Your task to perform on an android device: Go to calendar. Show me events next week Image 0: 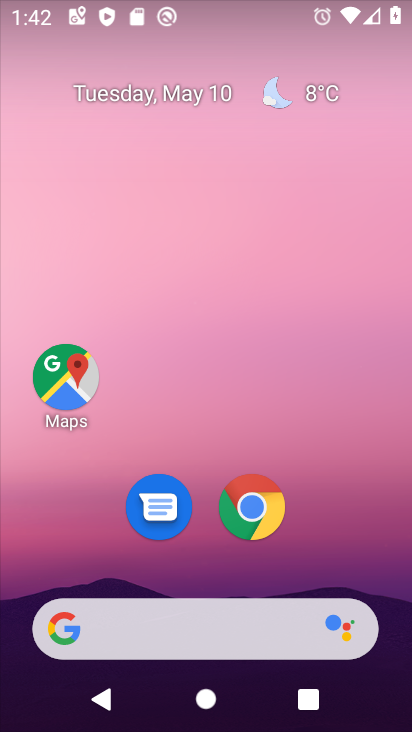
Step 0: drag from (216, 652) to (200, 185)
Your task to perform on an android device: Go to calendar. Show me events next week Image 1: 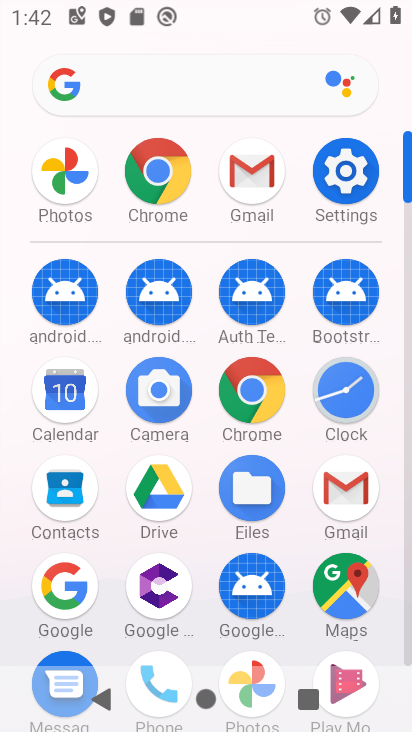
Step 1: click (66, 382)
Your task to perform on an android device: Go to calendar. Show me events next week Image 2: 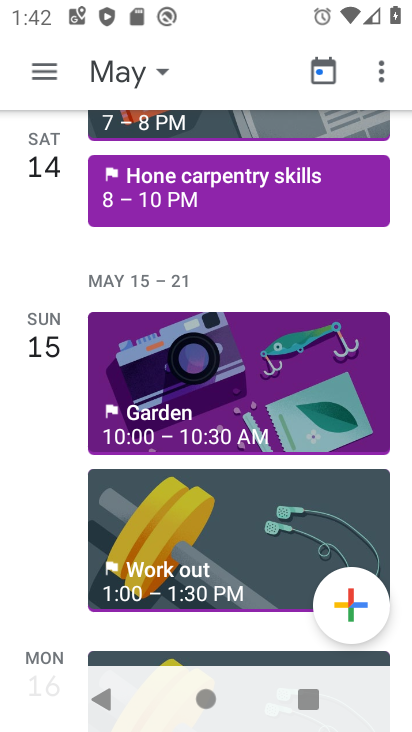
Step 2: click (121, 67)
Your task to perform on an android device: Go to calendar. Show me events next week Image 3: 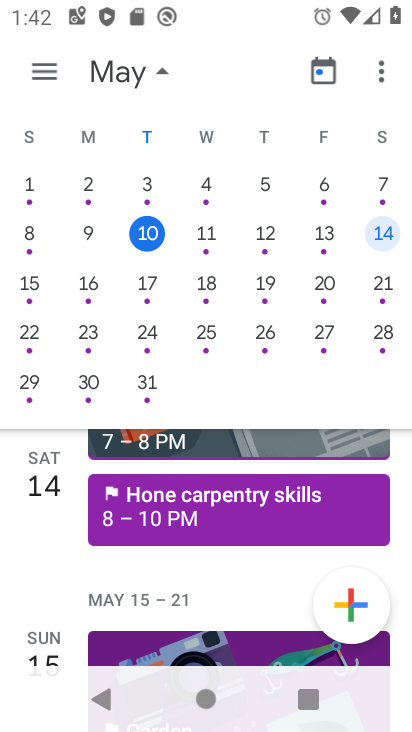
Step 3: click (90, 283)
Your task to perform on an android device: Go to calendar. Show me events next week Image 4: 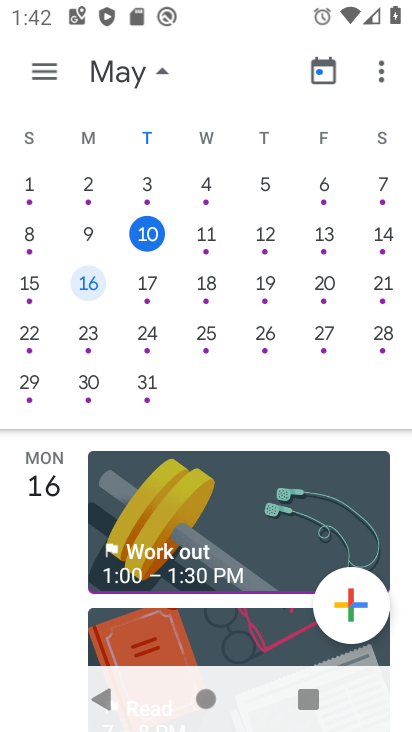
Step 4: click (47, 70)
Your task to perform on an android device: Go to calendar. Show me events next week Image 5: 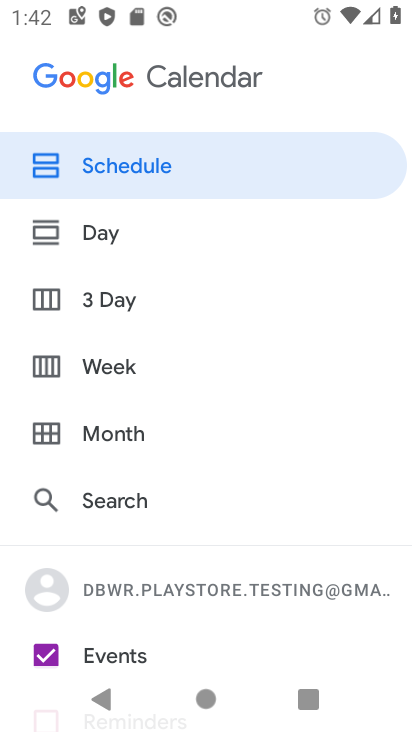
Step 5: click (112, 365)
Your task to perform on an android device: Go to calendar. Show me events next week Image 6: 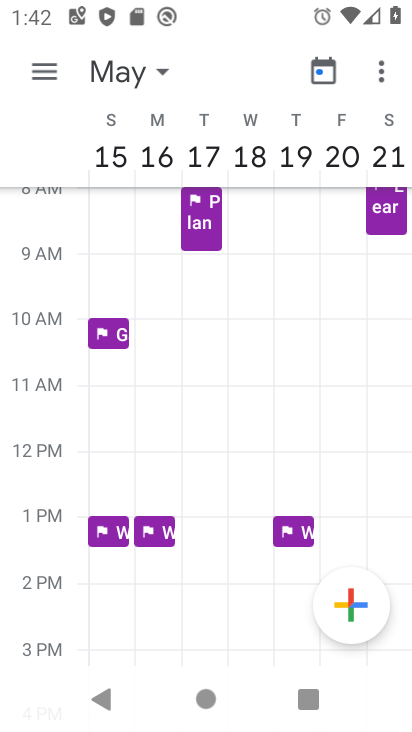
Step 6: task complete